Your task to perform on an android device: Show me the best rated 42 inch TV on Walmart. Image 0: 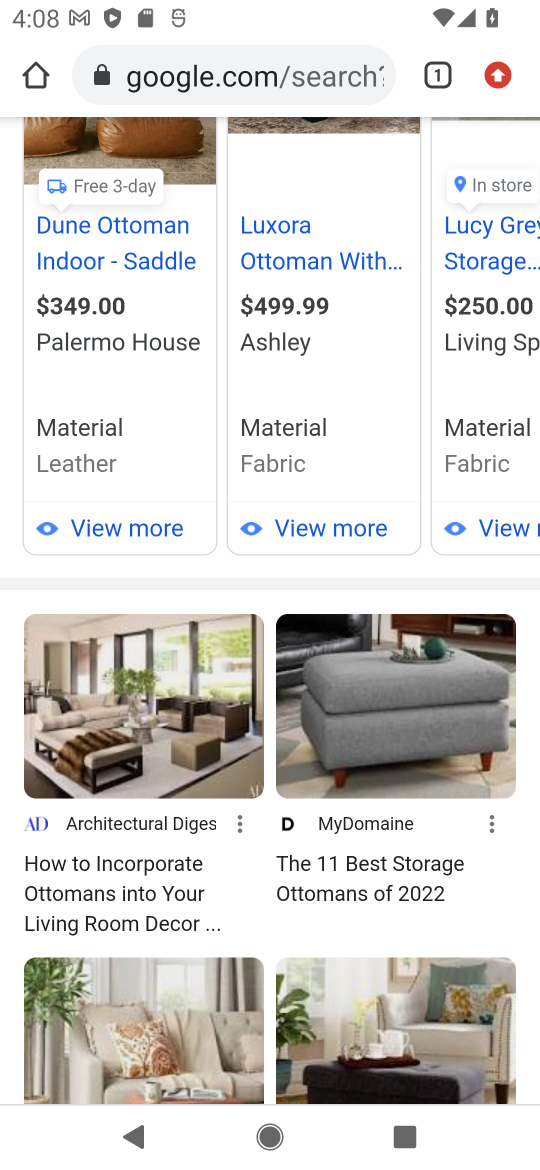
Step 0: press home button
Your task to perform on an android device: Show me the best rated 42 inch TV on Walmart. Image 1: 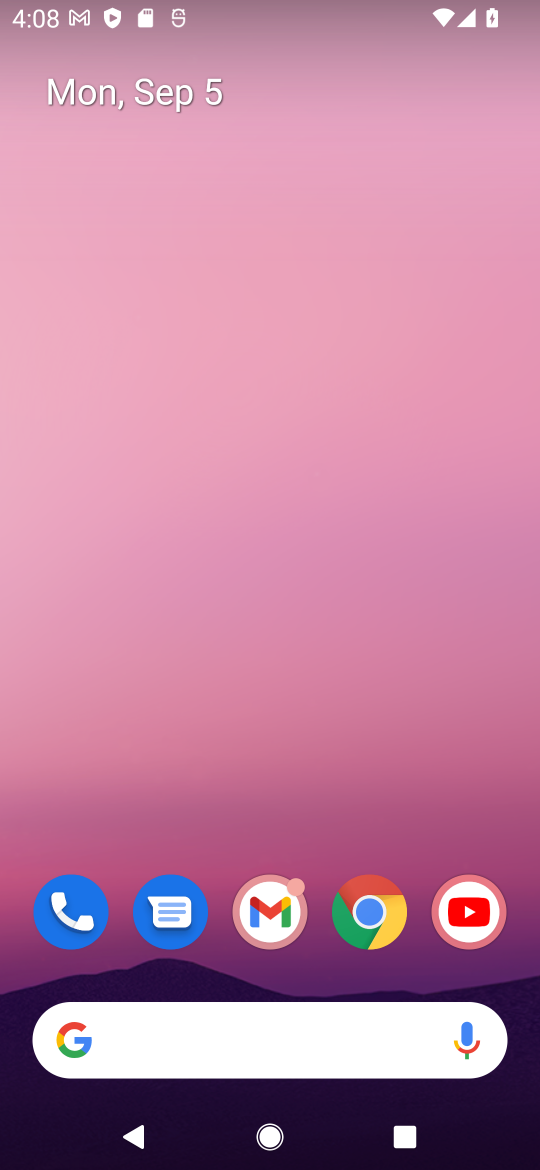
Step 1: click (393, 931)
Your task to perform on an android device: Show me the best rated 42 inch TV on Walmart. Image 2: 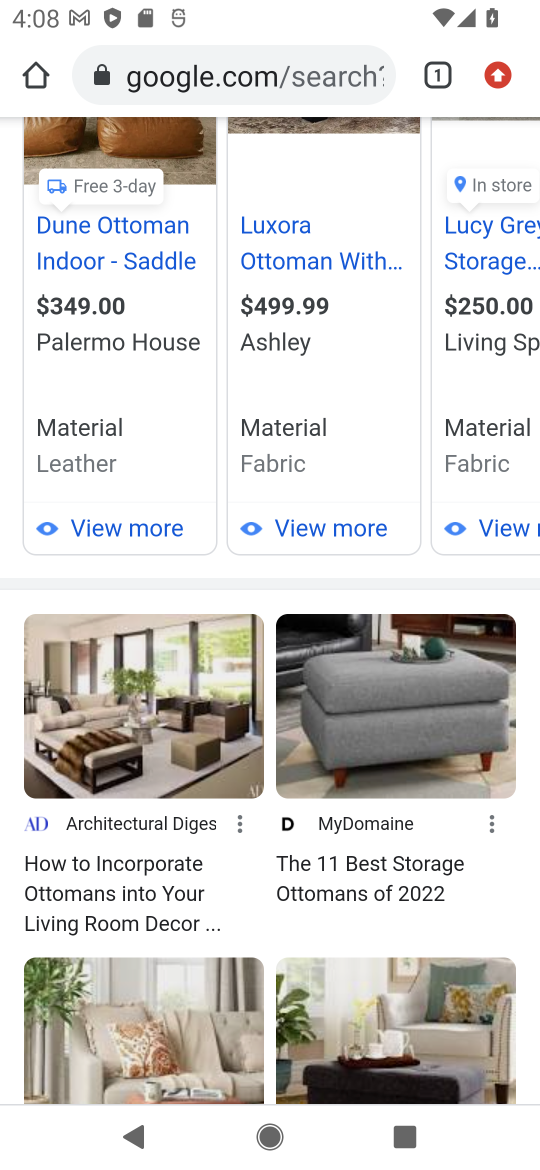
Step 2: click (300, 75)
Your task to perform on an android device: Show me the best rated 42 inch TV on Walmart. Image 3: 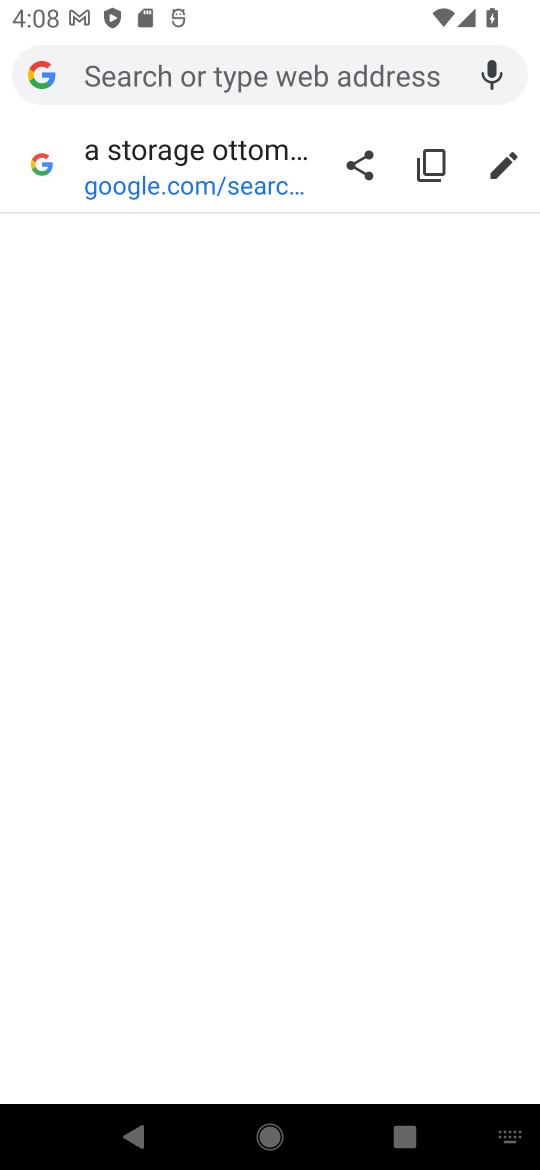
Step 3: type "walmart"
Your task to perform on an android device: Show me the best rated 42 inch TV on Walmart. Image 4: 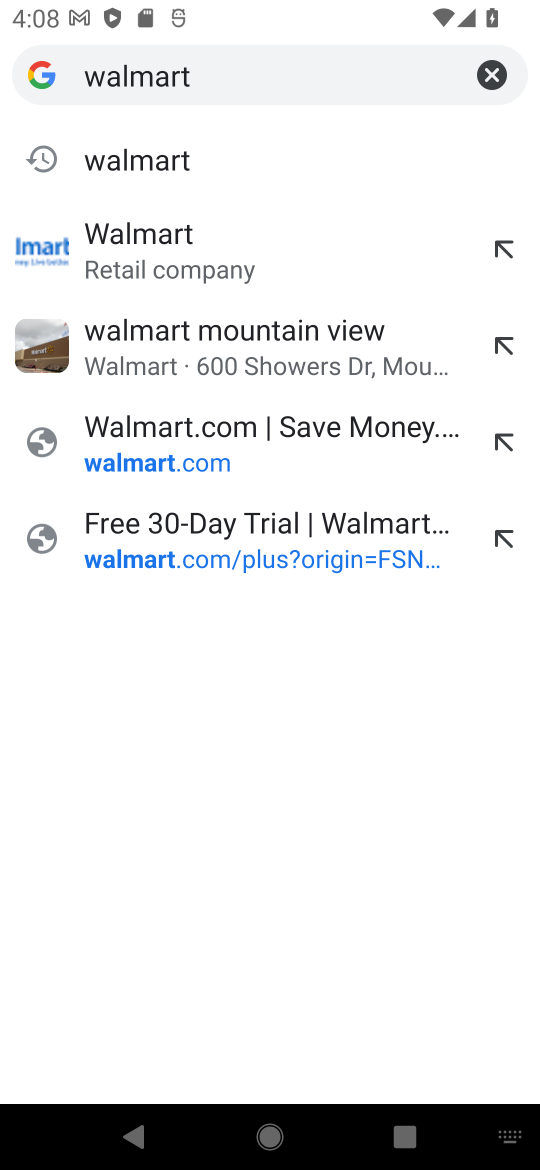
Step 4: press enter
Your task to perform on an android device: Show me the best rated 42 inch TV on Walmart. Image 5: 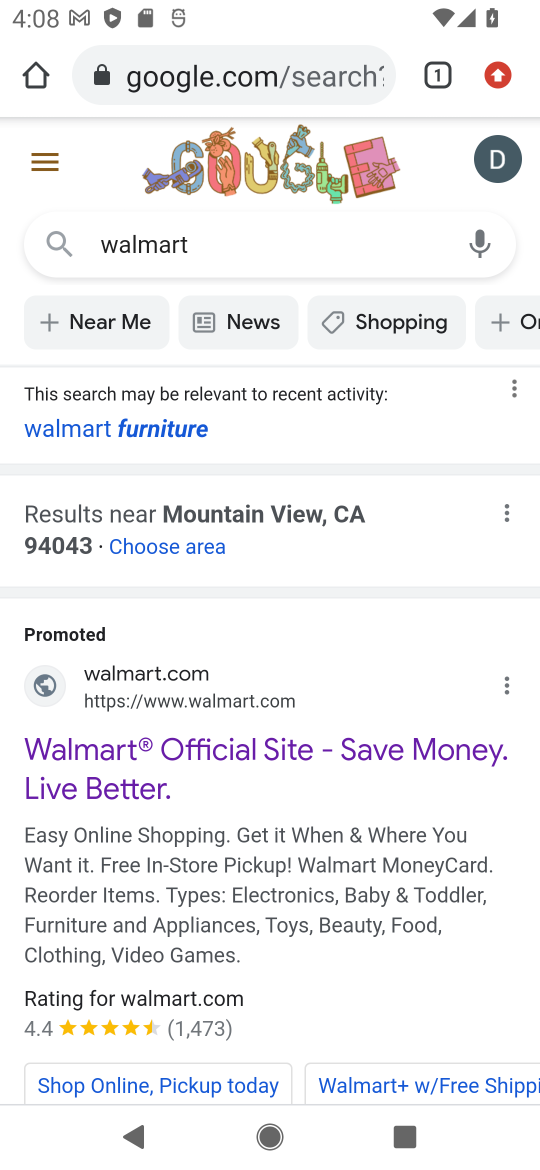
Step 5: click (101, 758)
Your task to perform on an android device: Show me the best rated 42 inch TV on Walmart. Image 6: 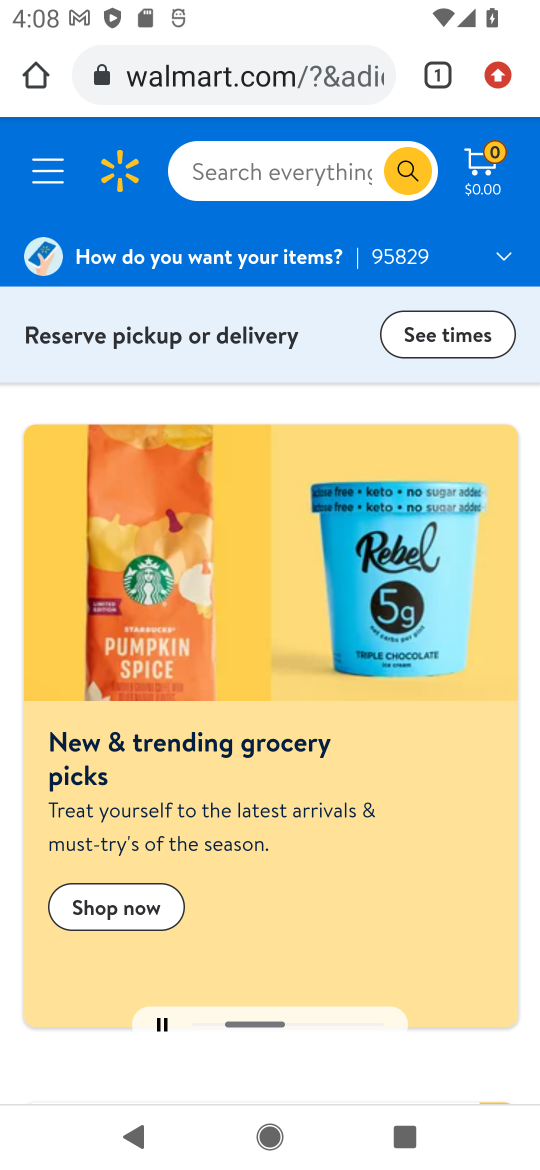
Step 6: click (236, 167)
Your task to perform on an android device: Show me the best rated 42 inch TV on Walmart. Image 7: 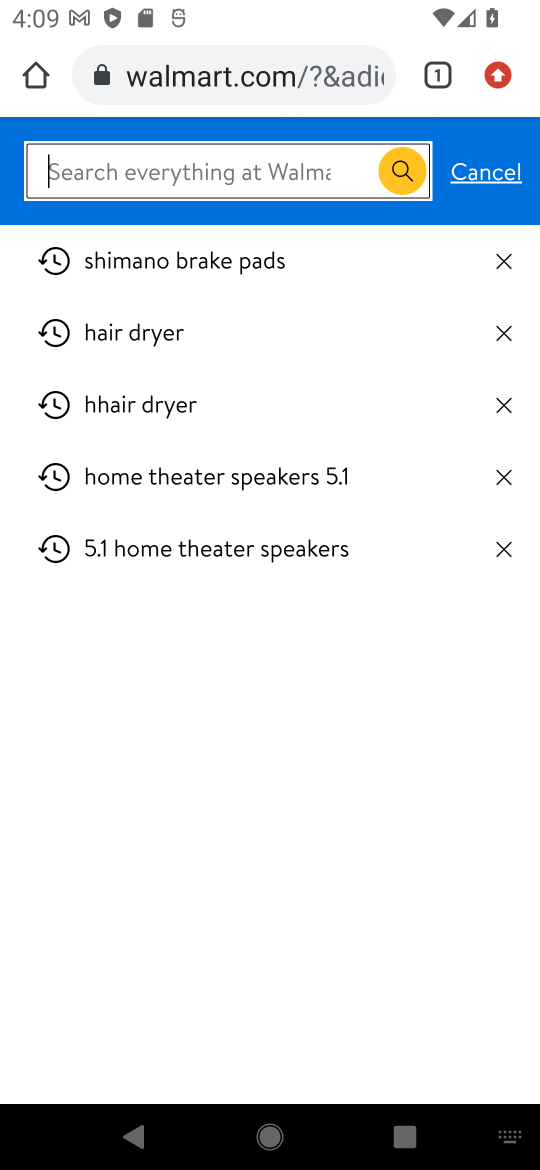
Step 7: type "best rated 42 inch tv"
Your task to perform on an android device: Show me the best rated 42 inch TV on Walmart. Image 8: 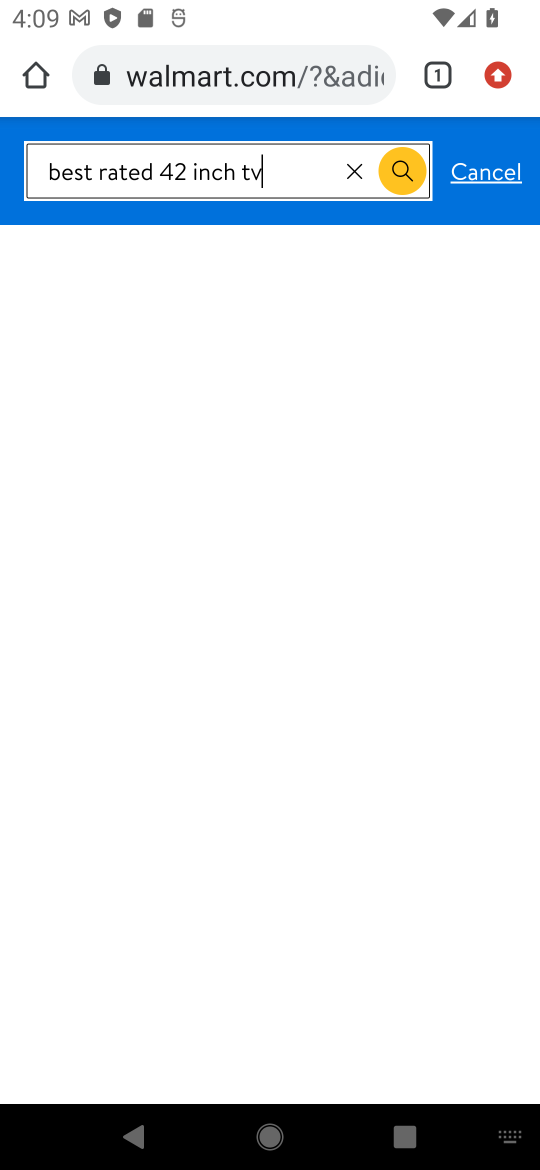
Step 8: press enter
Your task to perform on an android device: Show me the best rated 42 inch TV on Walmart. Image 9: 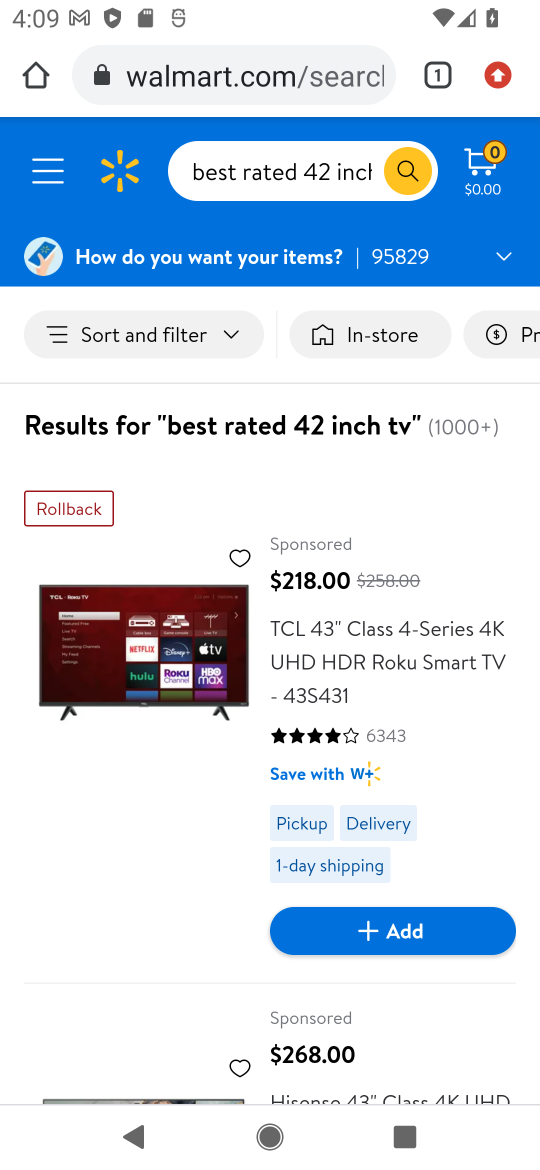
Step 9: click (170, 320)
Your task to perform on an android device: Show me the best rated 42 inch TV on Walmart. Image 10: 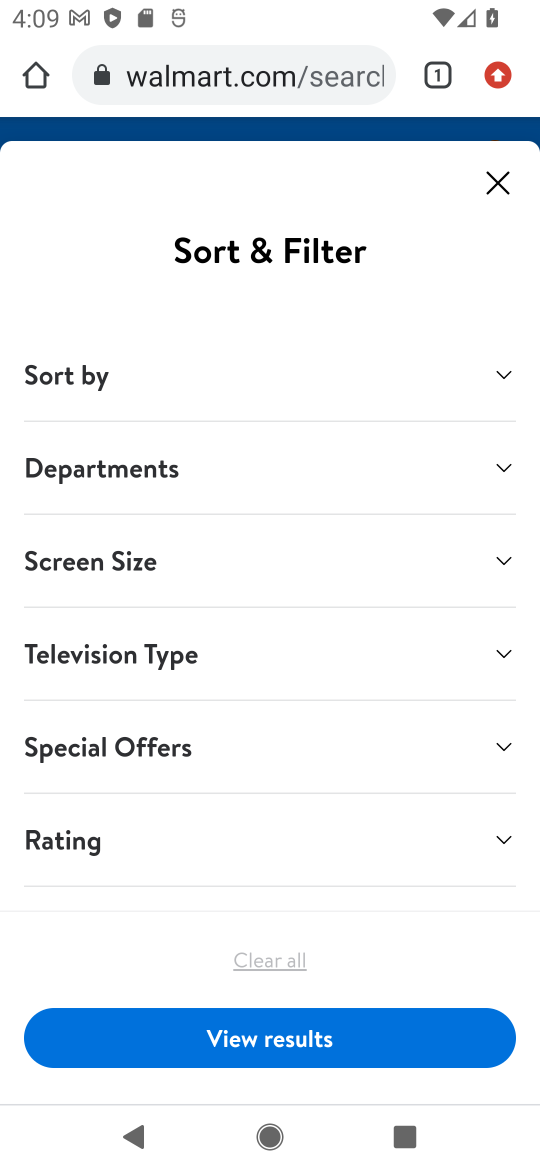
Step 10: click (261, 842)
Your task to perform on an android device: Show me the best rated 42 inch TV on Walmart. Image 11: 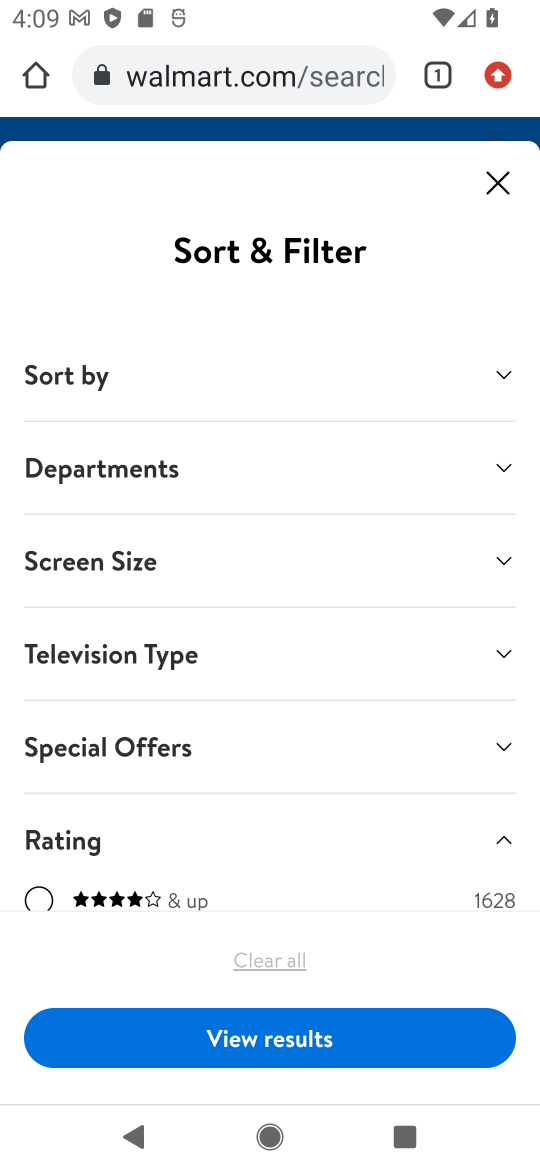
Step 11: click (164, 892)
Your task to perform on an android device: Show me the best rated 42 inch TV on Walmart. Image 12: 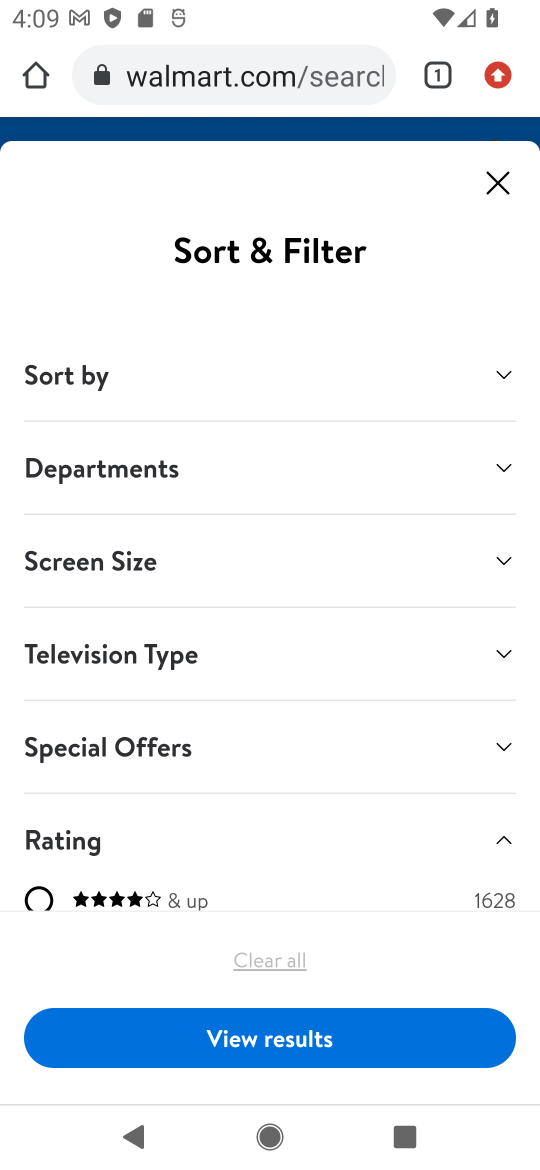
Step 12: click (164, 893)
Your task to perform on an android device: Show me the best rated 42 inch TV on Walmart. Image 13: 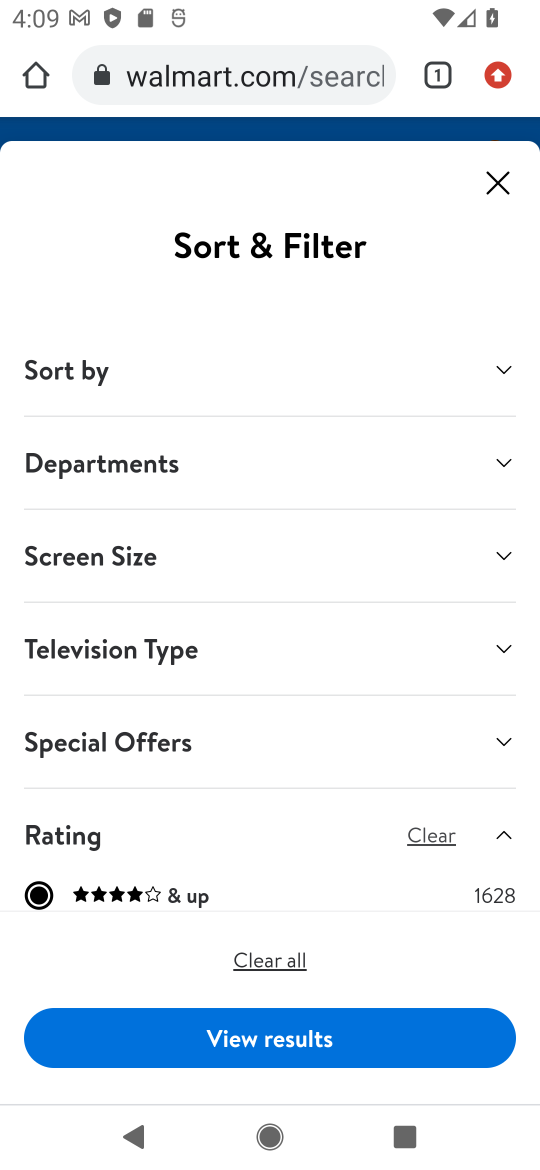
Step 13: click (278, 1039)
Your task to perform on an android device: Show me the best rated 42 inch TV on Walmart. Image 14: 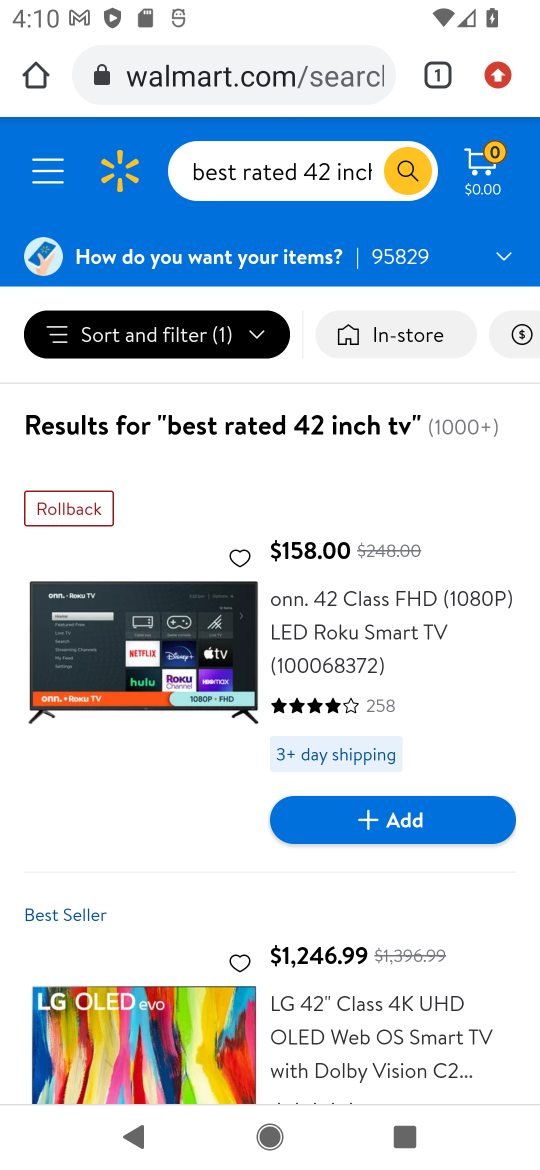
Step 14: drag from (240, 911) to (222, 613)
Your task to perform on an android device: Show me the best rated 42 inch TV on Walmart. Image 15: 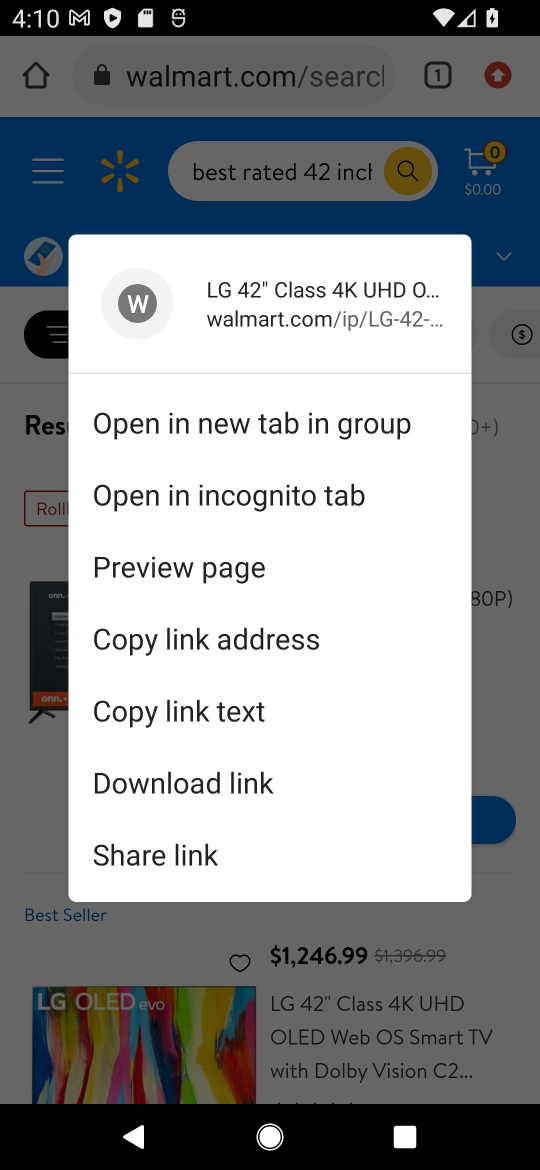
Step 15: click (513, 638)
Your task to perform on an android device: Show me the best rated 42 inch TV on Walmart. Image 16: 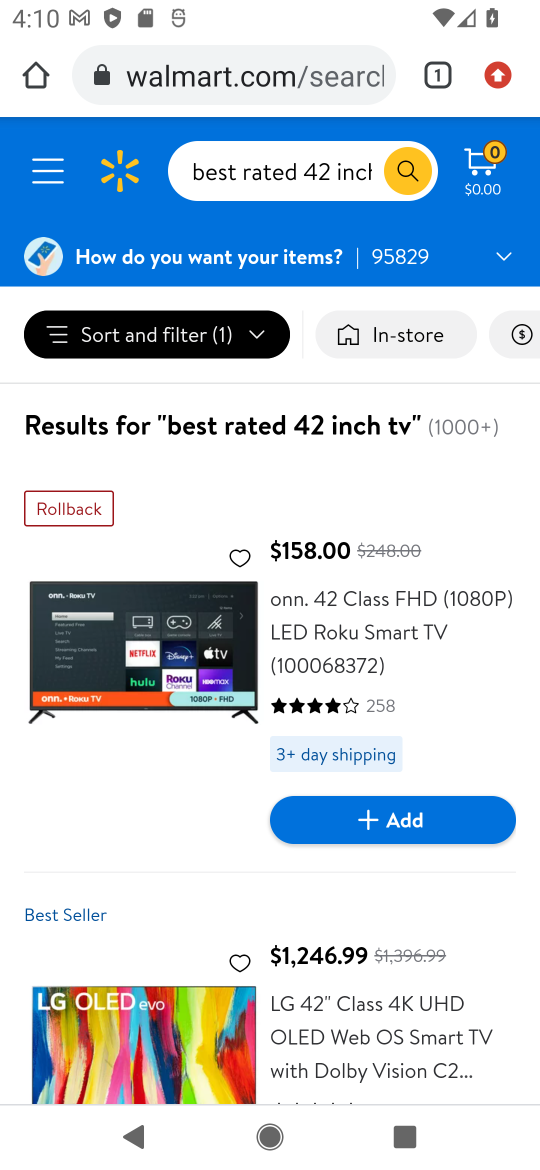
Step 16: click (295, 888)
Your task to perform on an android device: Show me the best rated 42 inch TV on Walmart. Image 17: 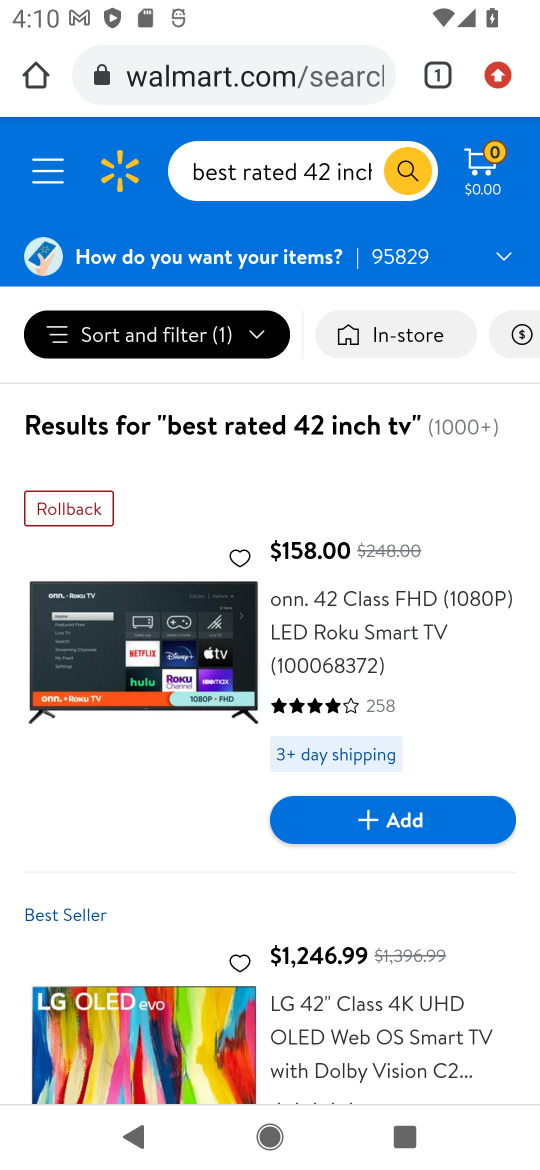
Step 17: task complete